Your task to perform on an android device: Do I have any events tomorrow? Image 0: 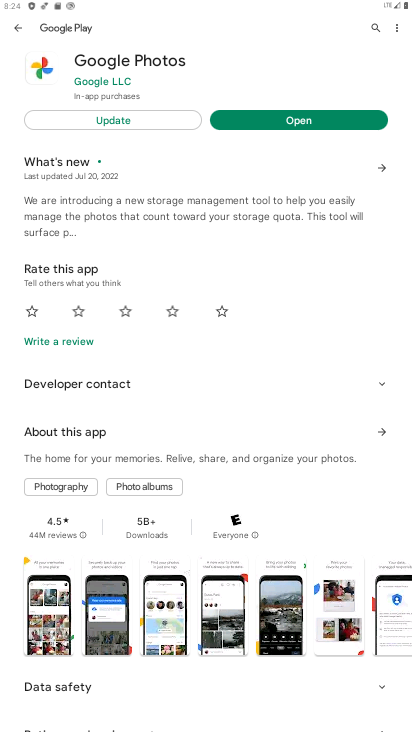
Step 0: press home button
Your task to perform on an android device: Do I have any events tomorrow? Image 1: 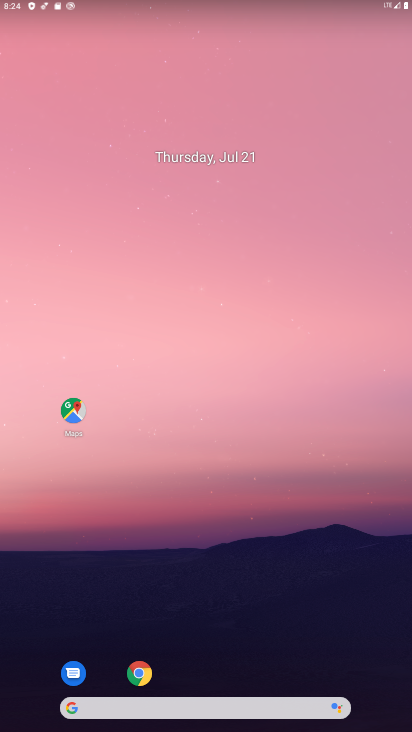
Step 1: drag from (228, 644) to (220, 149)
Your task to perform on an android device: Do I have any events tomorrow? Image 2: 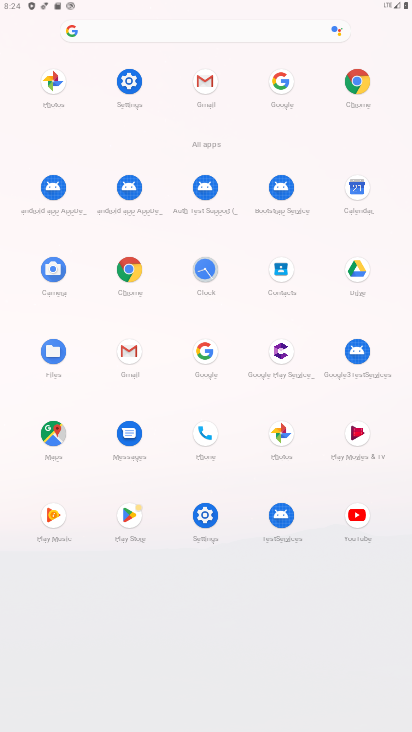
Step 2: click (346, 197)
Your task to perform on an android device: Do I have any events tomorrow? Image 3: 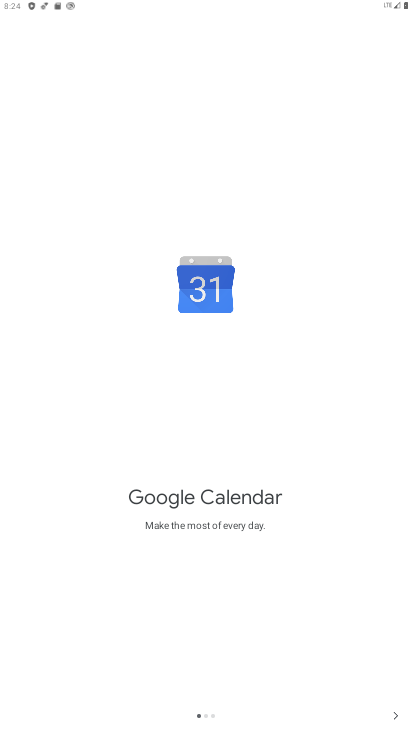
Step 3: click (397, 718)
Your task to perform on an android device: Do I have any events tomorrow? Image 4: 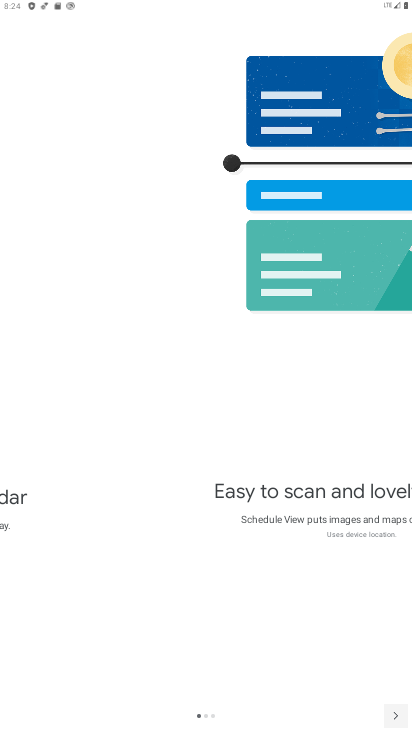
Step 4: click (397, 718)
Your task to perform on an android device: Do I have any events tomorrow? Image 5: 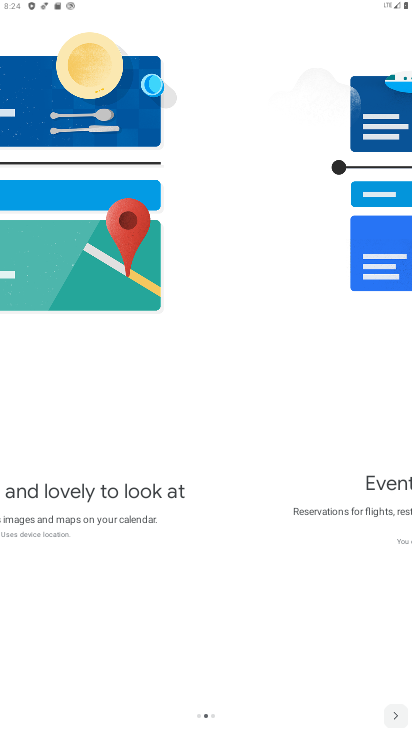
Step 5: click (394, 718)
Your task to perform on an android device: Do I have any events tomorrow? Image 6: 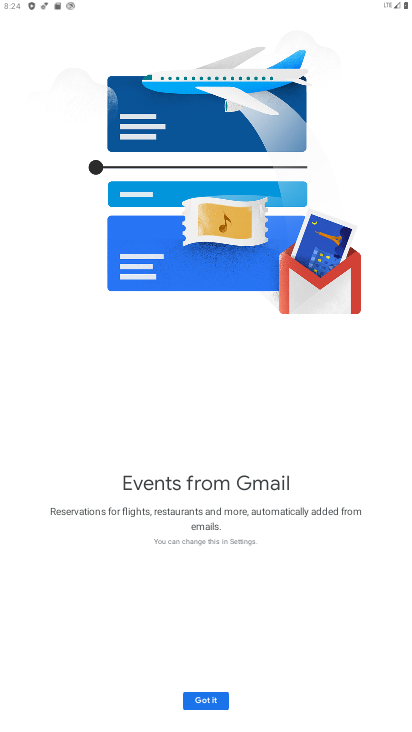
Step 6: click (218, 702)
Your task to perform on an android device: Do I have any events tomorrow? Image 7: 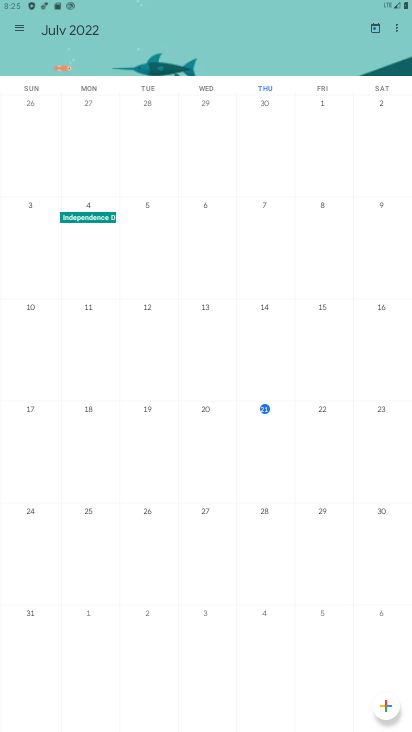
Step 7: click (316, 451)
Your task to perform on an android device: Do I have any events tomorrow? Image 8: 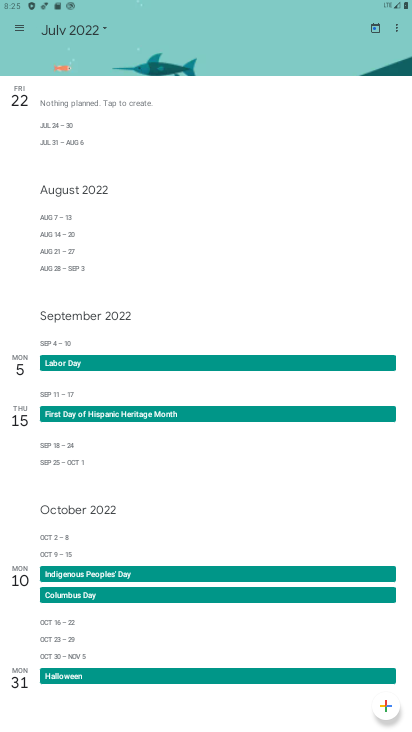
Step 8: task complete